Your task to perform on an android device: What's the weather going to be tomorrow? Image 0: 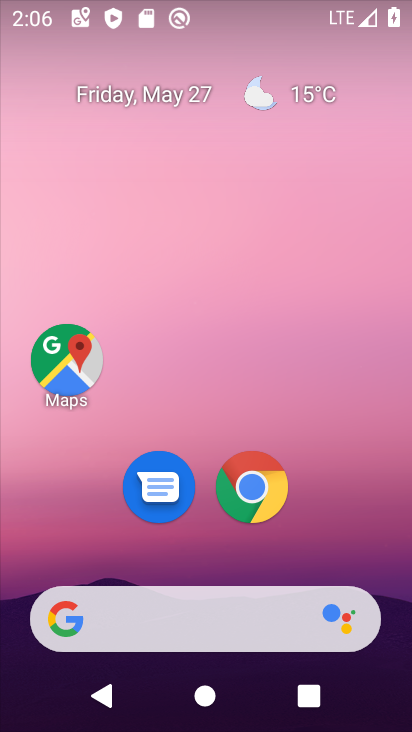
Step 0: drag from (358, 537) to (387, 167)
Your task to perform on an android device: What's the weather going to be tomorrow? Image 1: 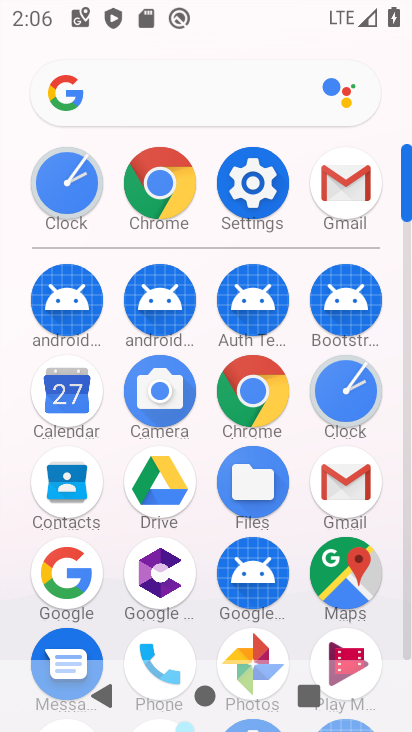
Step 1: press home button
Your task to perform on an android device: What's the weather going to be tomorrow? Image 2: 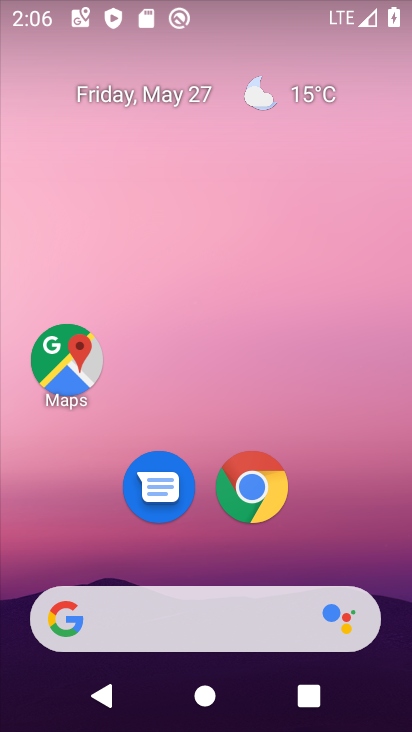
Step 2: click (305, 89)
Your task to perform on an android device: What's the weather going to be tomorrow? Image 3: 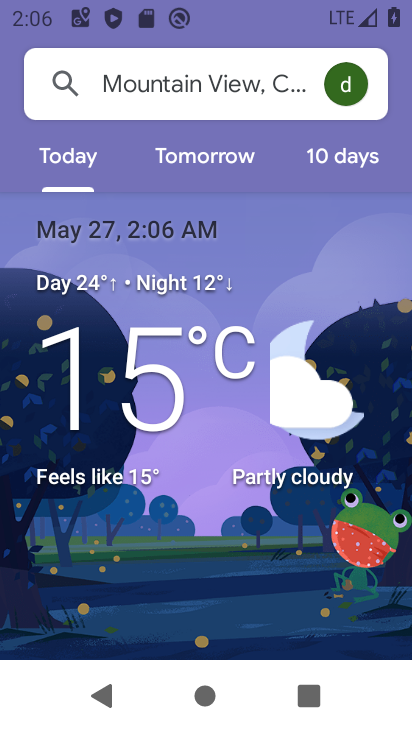
Step 3: click (224, 169)
Your task to perform on an android device: What's the weather going to be tomorrow? Image 4: 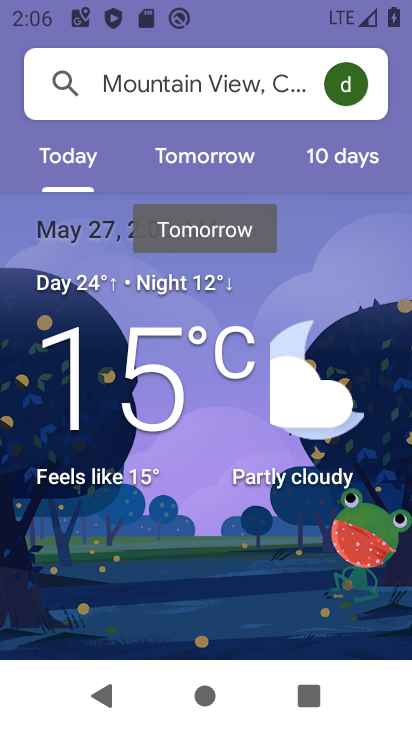
Step 4: click (228, 163)
Your task to perform on an android device: What's the weather going to be tomorrow? Image 5: 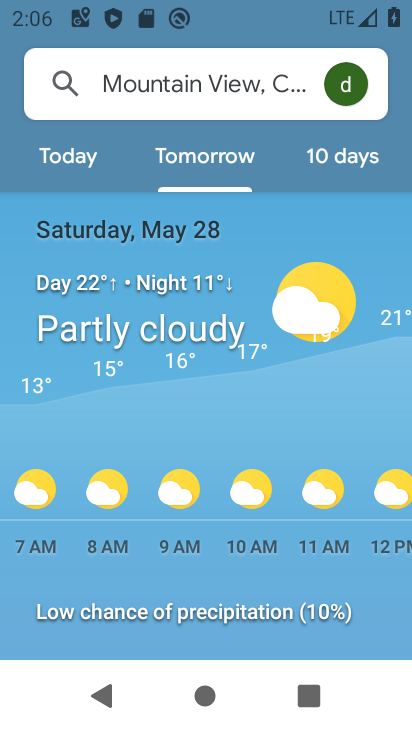
Step 5: task complete